Your task to perform on an android device: View the shopping cart on newegg.com. Search for usb-c to usb-b on newegg.com, select the first entry, add it to the cart, then select checkout. Image 0: 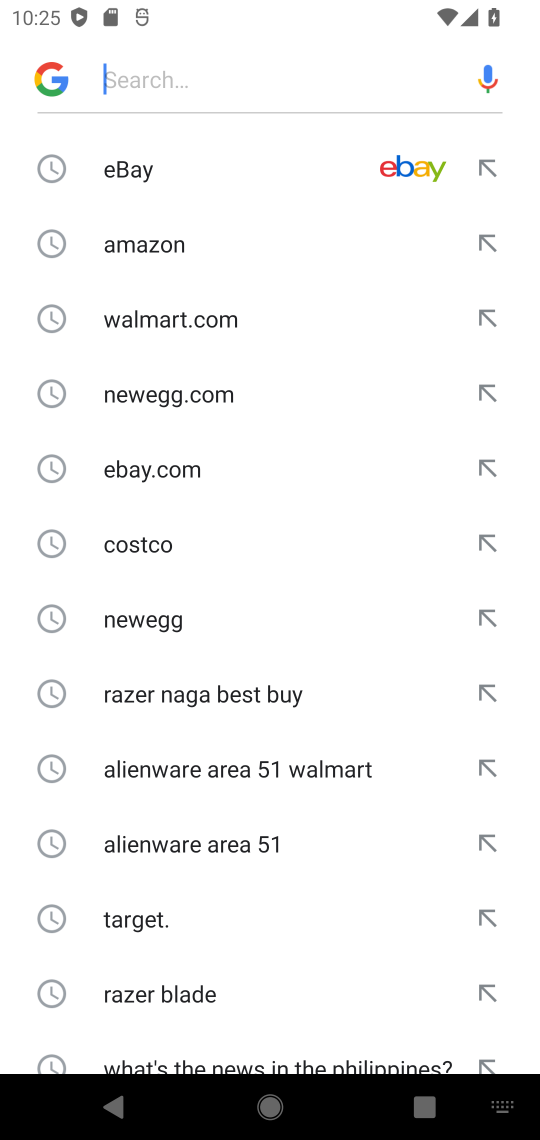
Step 0: click (139, 622)
Your task to perform on an android device: View the shopping cart on newegg.com. Search for usb-c to usb-b on newegg.com, select the first entry, add it to the cart, then select checkout. Image 1: 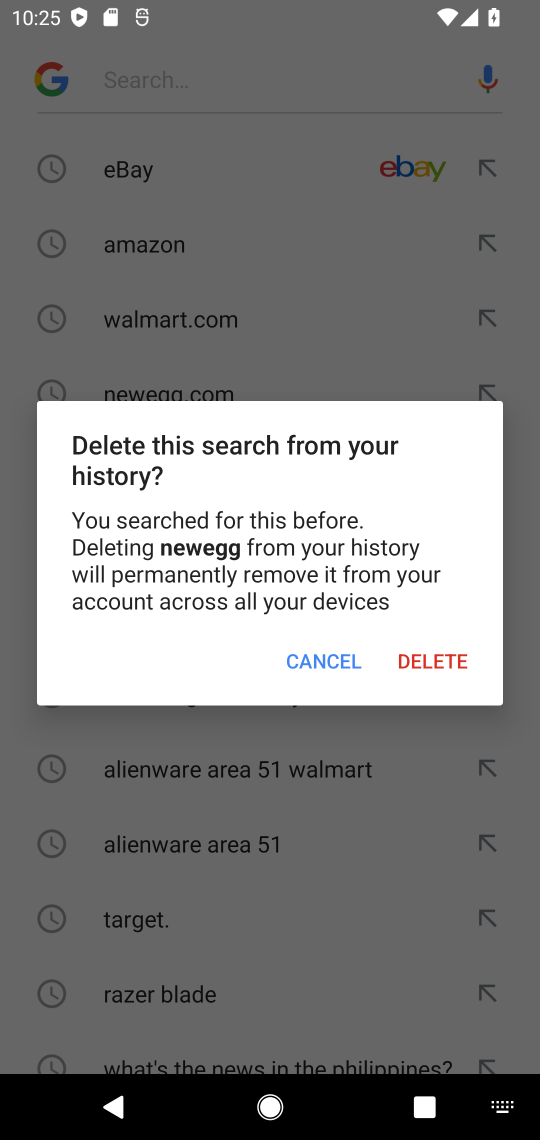
Step 1: click (326, 664)
Your task to perform on an android device: View the shopping cart on newegg.com. Search for usb-c to usb-b on newegg.com, select the first entry, add it to the cart, then select checkout. Image 2: 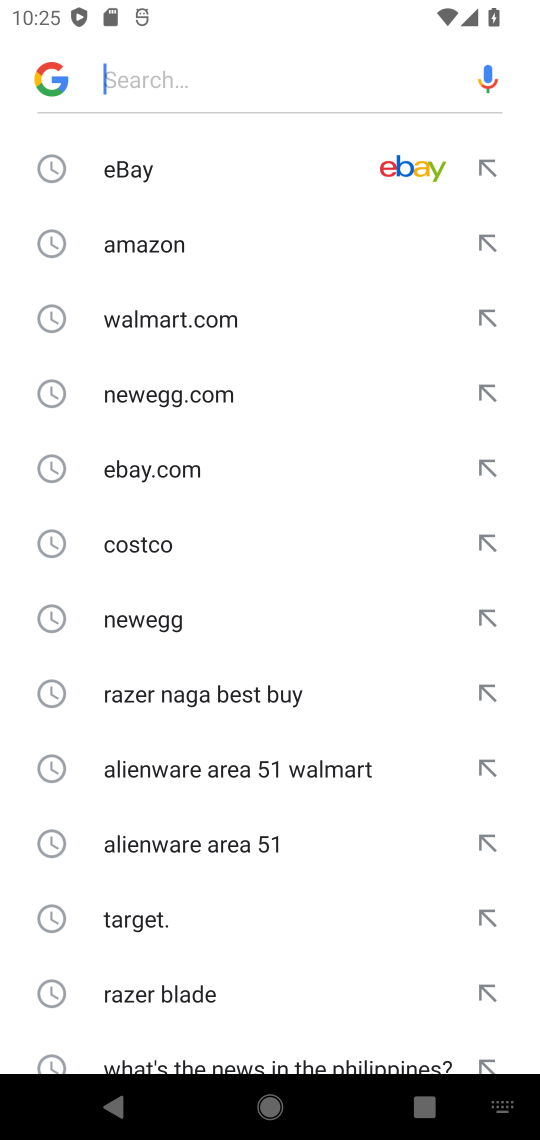
Step 2: click (336, 67)
Your task to perform on an android device: View the shopping cart on newegg.com. Search for usb-c to usb-b on newegg.com, select the first entry, add it to the cart, then select checkout. Image 3: 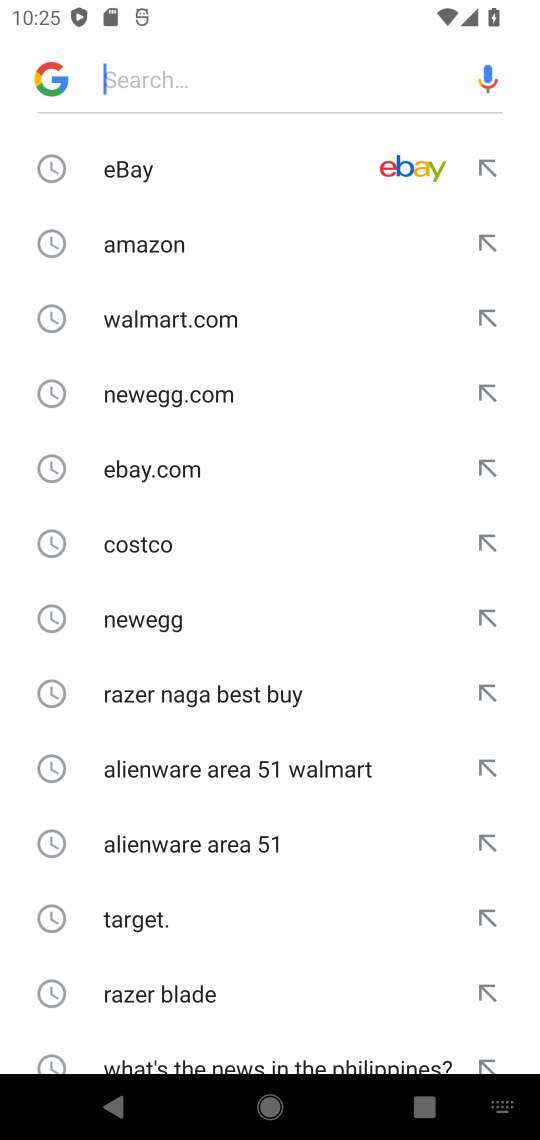
Step 3: click (231, 385)
Your task to perform on an android device: View the shopping cart on newegg.com. Search for usb-c to usb-b on newegg.com, select the first entry, add it to the cart, then select checkout. Image 4: 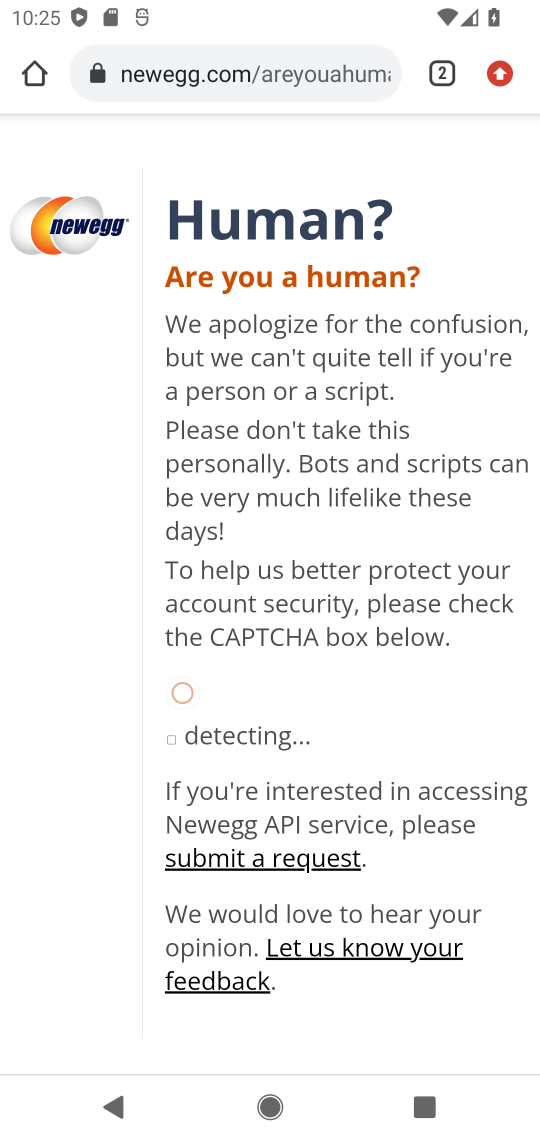
Step 4: click (341, 68)
Your task to perform on an android device: View the shopping cart on newegg.com. Search for usb-c to usb-b on newegg.com, select the first entry, add it to the cart, then select checkout. Image 5: 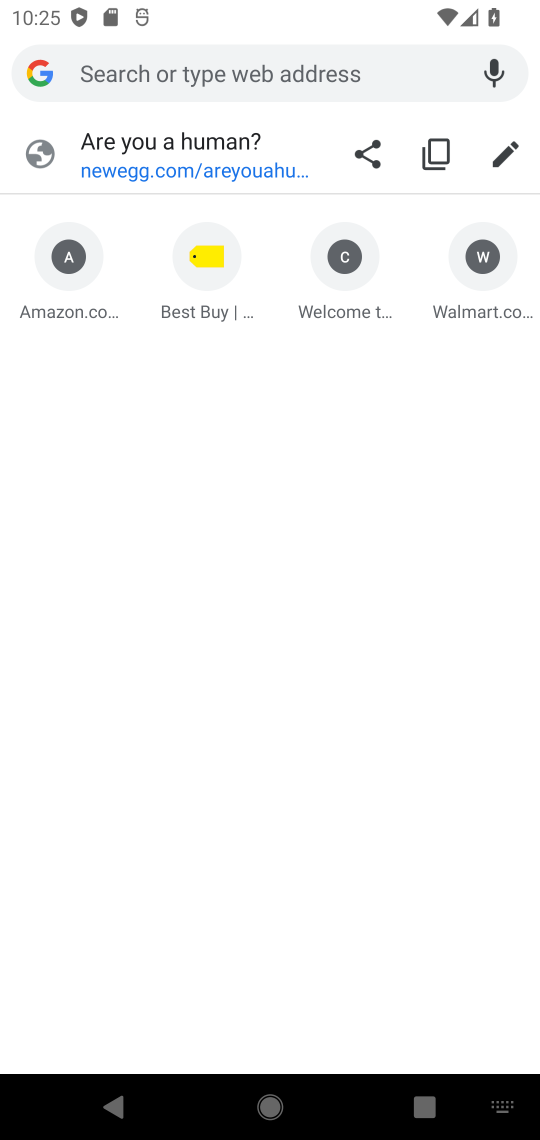
Step 5: type "newegg"
Your task to perform on an android device: View the shopping cart on newegg.com. Search for usb-c to usb-b on newegg.com, select the first entry, add it to the cart, then select checkout. Image 6: 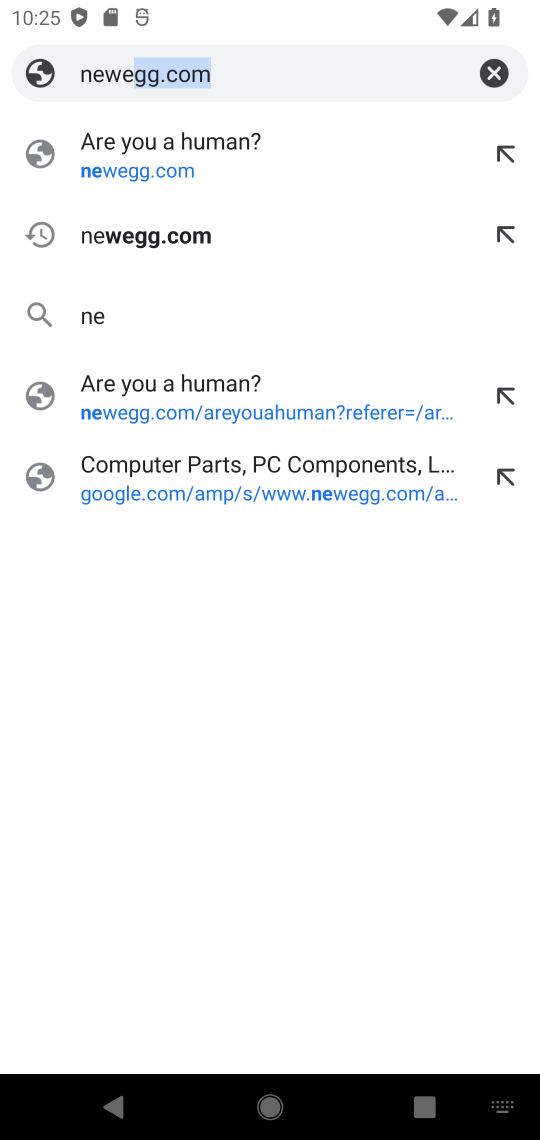
Step 6: press enter
Your task to perform on an android device: View the shopping cart on newegg.com. Search for usb-c to usb-b on newegg.com, select the first entry, add it to the cart, then select checkout. Image 7: 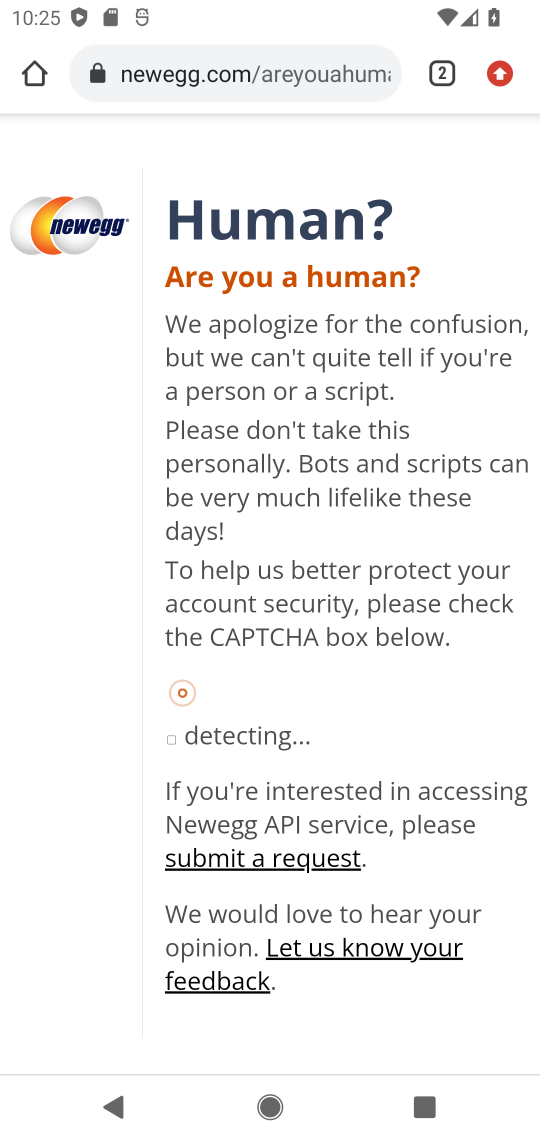
Step 7: task complete